Your task to perform on an android device: Go to location settings Image 0: 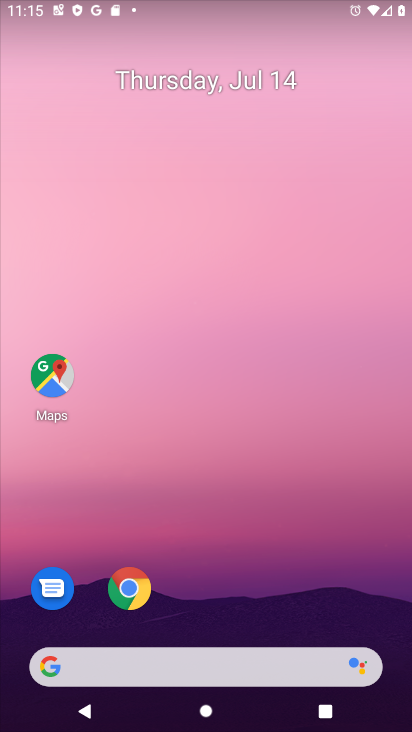
Step 0: drag from (297, 579) to (289, 15)
Your task to perform on an android device: Go to location settings Image 1: 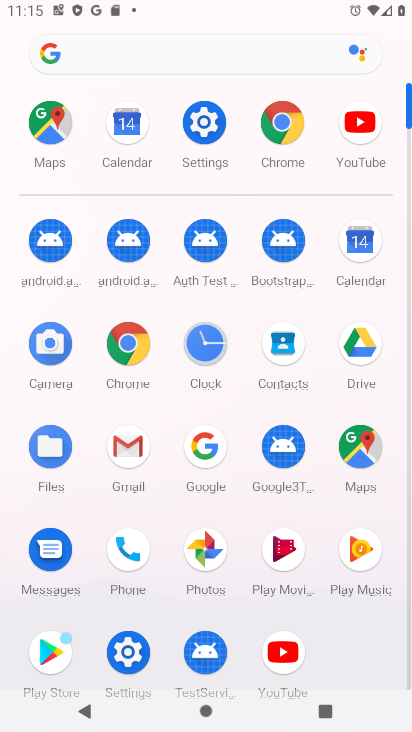
Step 1: click (209, 140)
Your task to perform on an android device: Go to location settings Image 2: 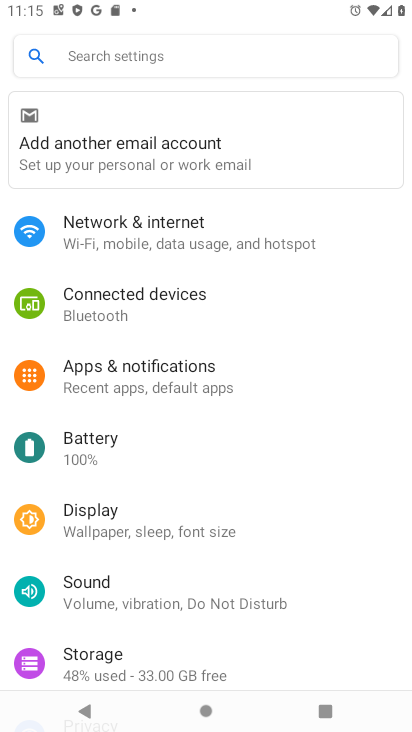
Step 2: drag from (92, 619) to (124, 70)
Your task to perform on an android device: Go to location settings Image 3: 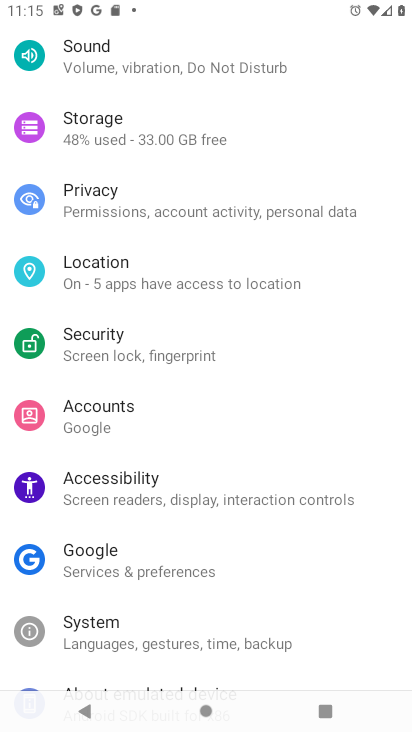
Step 3: click (126, 285)
Your task to perform on an android device: Go to location settings Image 4: 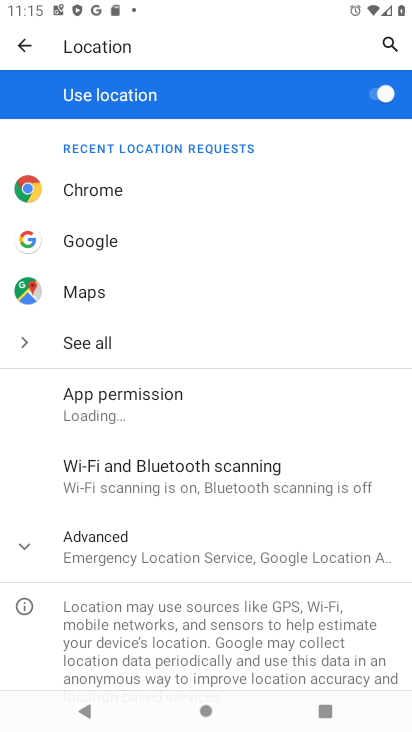
Step 4: task complete